Your task to perform on an android device: refresh tabs in the chrome app Image 0: 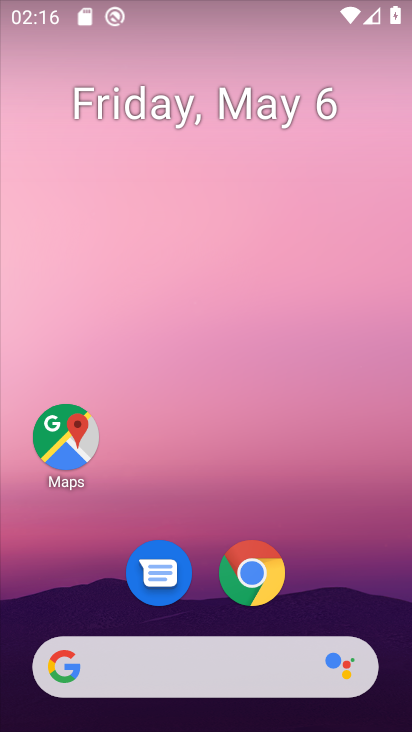
Step 0: drag from (335, 433) to (326, 234)
Your task to perform on an android device: refresh tabs in the chrome app Image 1: 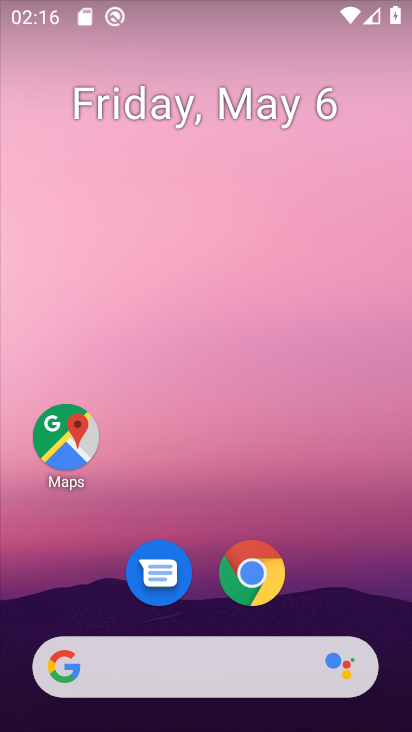
Step 1: drag from (332, 496) to (349, 143)
Your task to perform on an android device: refresh tabs in the chrome app Image 2: 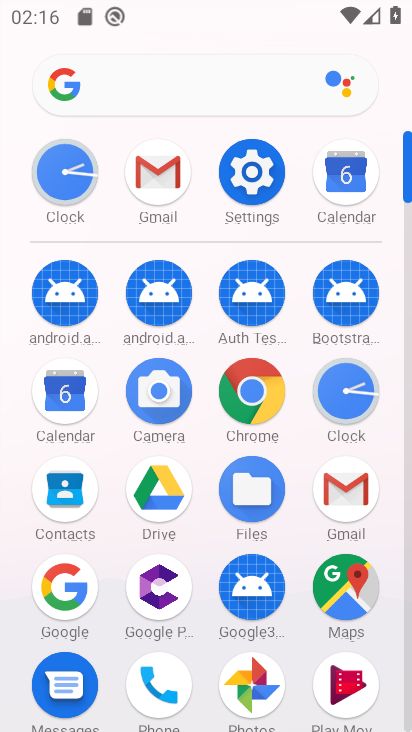
Step 2: click (247, 381)
Your task to perform on an android device: refresh tabs in the chrome app Image 3: 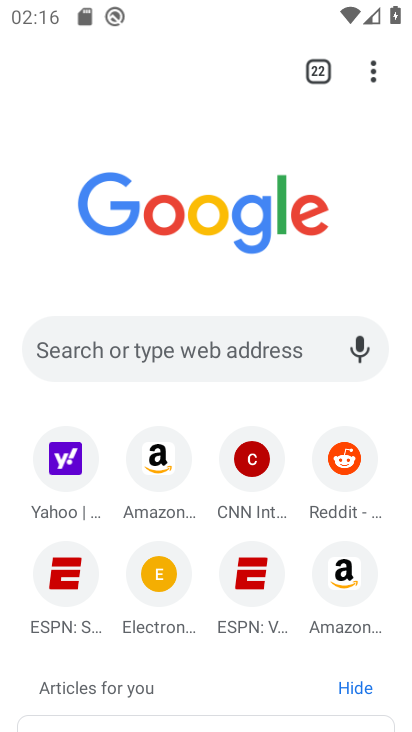
Step 3: click (363, 71)
Your task to perform on an android device: refresh tabs in the chrome app Image 4: 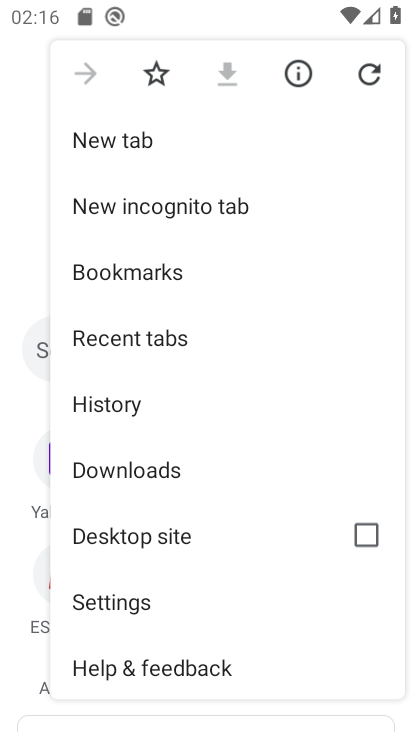
Step 4: click (368, 66)
Your task to perform on an android device: refresh tabs in the chrome app Image 5: 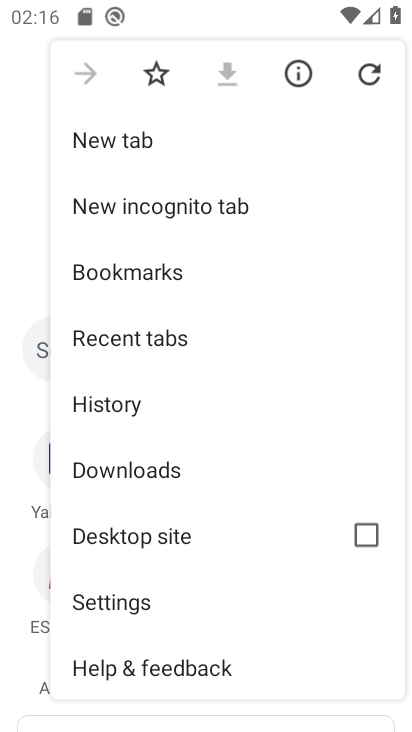
Step 5: click (379, 68)
Your task to perform on an android device: refresh tabs in the chrome app Image 6: 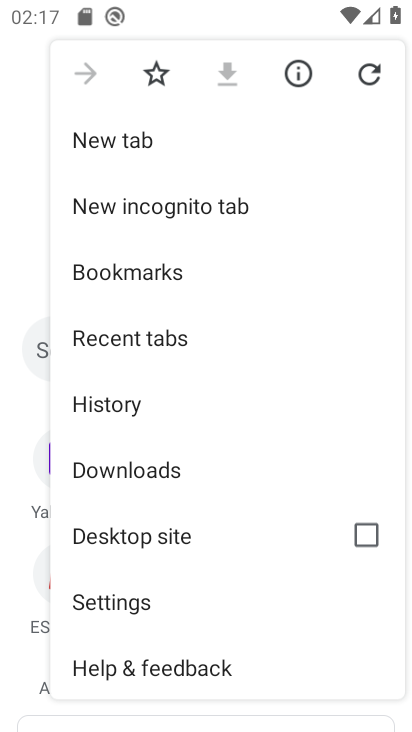
Step 6: task complete